Your task to perform on an android device: Search for a custom made wallet on Etsy Image 0: 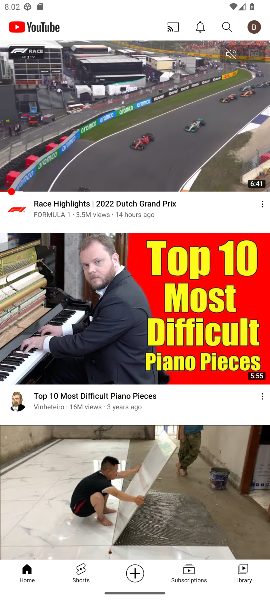
Step 0: press home button
Your task to perform on an android device: Search for a custom made wallet on Etsy Image 1: 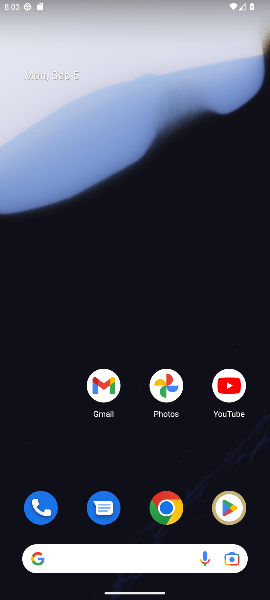
Step 1: click (170, 510)
Your task to perform on an android device: Search for a custom made wallet on Etsy Image 2: 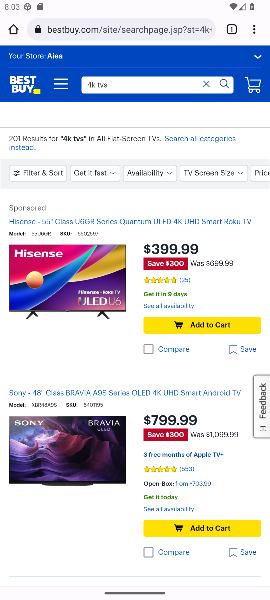
Step 2: click (133, 35)
Your task to perform on an android device: Search for a custom made wallet on Etsy Image 3: 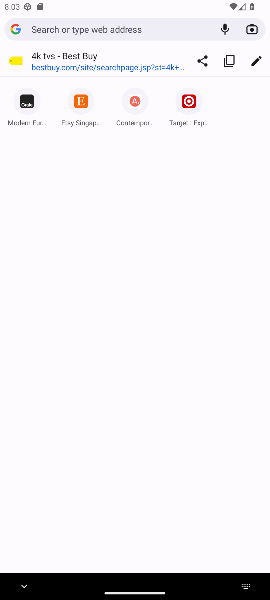
Step 3: type "etsy"
Your task to perform on an android device: Search for a custom made wallet on Etsy Image 4: 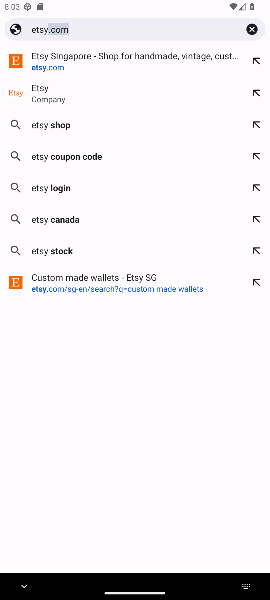
Step 4: click (42, 65)
Your task to perform on an android device: Search for a custom made wallet on Etsy Image 5: 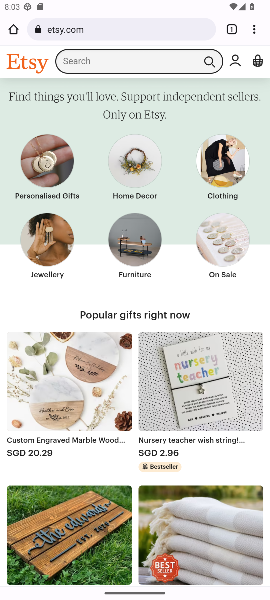
Step 5: click (90, 60)
Your task to perform on an android device: Search for a custom made wallet on Etsy Image 6: 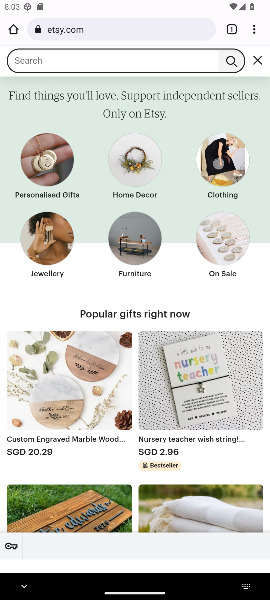
Step 6: click (109, 62)
Your task to perform on an android device: Search for a custom made wallet on Etsy Image 7: 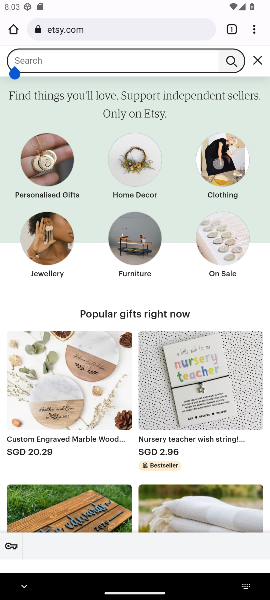
Step 7: click (27, 58)
Your task to perform on an android device: Search for a custom made wallet on Etsy Image 8: 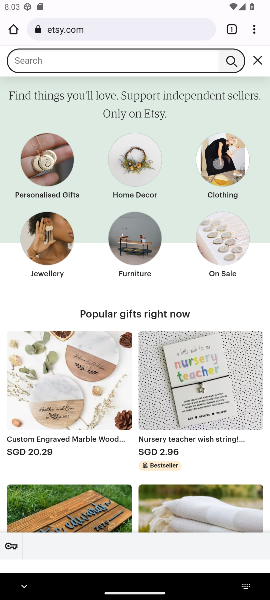
Step 8: type "custom made wallet"
Your task to perform on an android device: Search for a custom made wallet on Etsy Image 9: 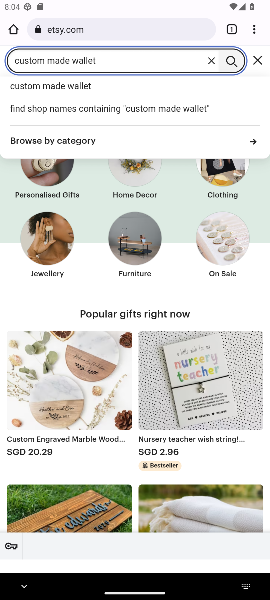
Step 9: click (41, 92)
Your task to perform on an android device: Search for a custom made wallet on Etsy Image 10: 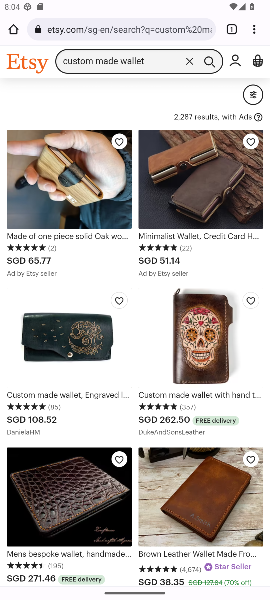
Step 10: task complete